Your task to perform on an android device: turn off improve location accuracy Image 0: 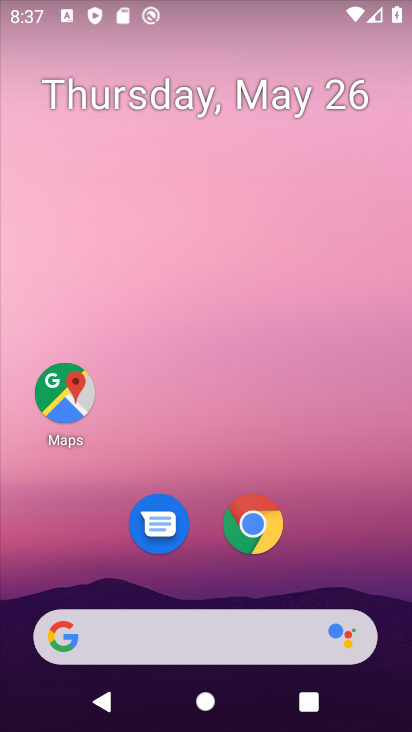
Step 0: drag from (262, 428) to (216, 76)
Your task to perform on an android device: turn off improve location accuracy Image 1: 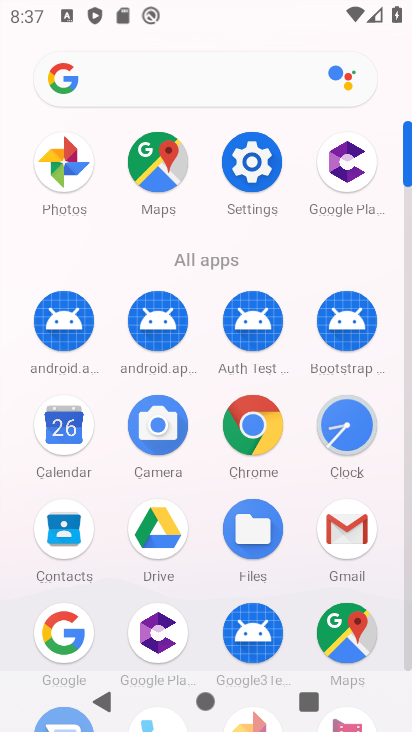
Step 1: click (251, 164)
Your task to perform on an android device: turn off improve location accuracy Image 2: 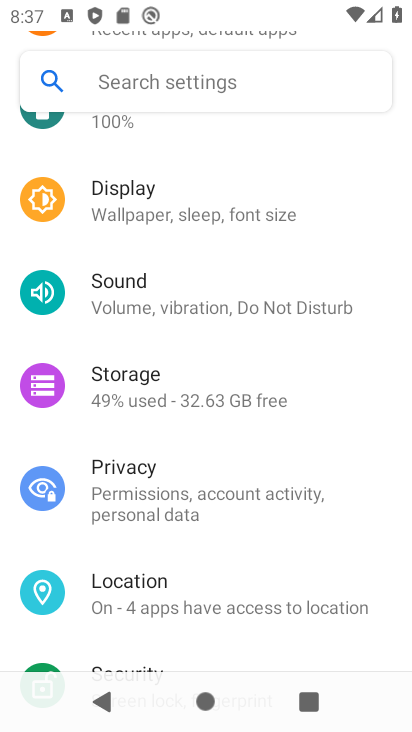
Step 2: click (228, 575)
Your task to perform on an android device: turn off improve location accuracy Image 3: 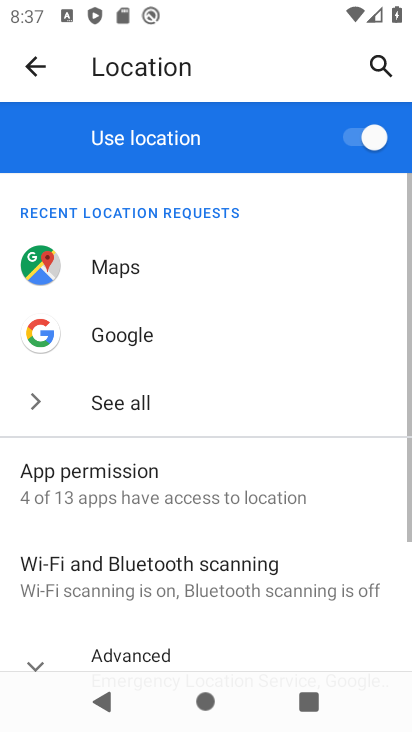
Step 3: click (35, 657)
Your task to perform on an android device: turn off improve location accuracy Image 4: 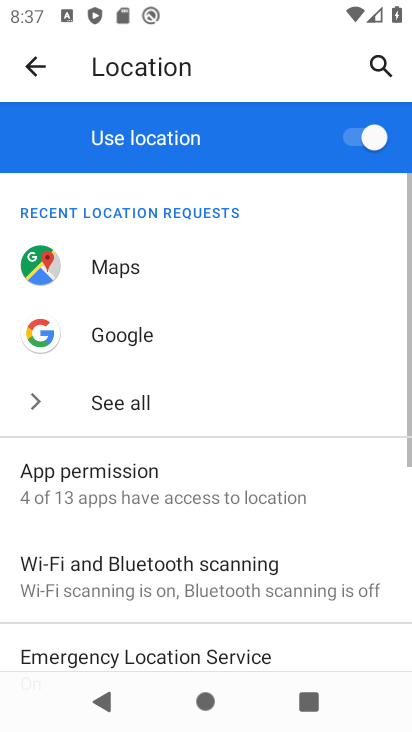
Step 4: drag from (184, 540) to (225, 147)
Your task to perform on an android device: turn off improve location accuracy Image 5: 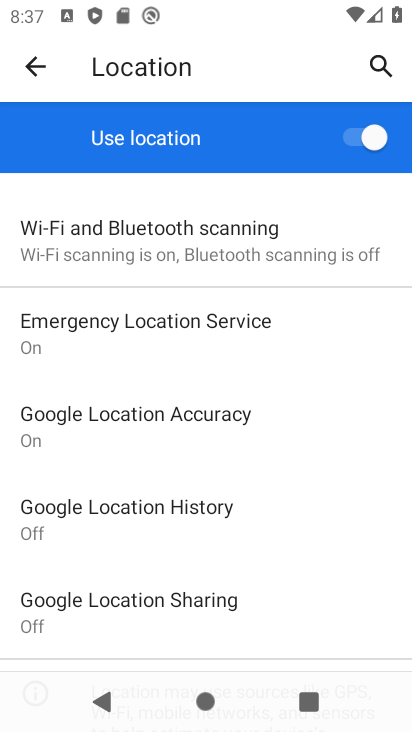
Step 5: click (217, 429)
Your task to perform on an android device: turn off improve location accuracy Image 6: 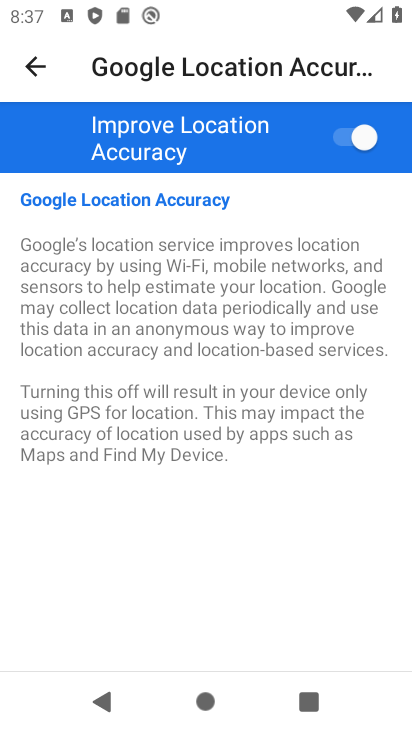
Step 6: click (344, 130)
Your task to perform on an android device: turn off improve location accuracy Image 7: 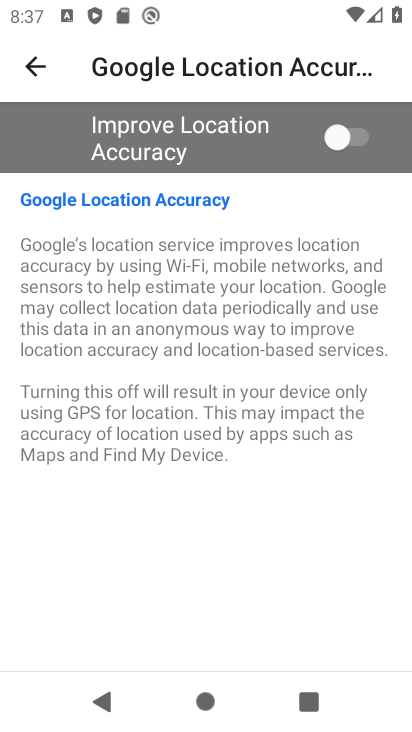
Step 7: task complete